Your task to perform on an android device: Open Google Chrome and click the shortcut for Amazon.com Image 0: 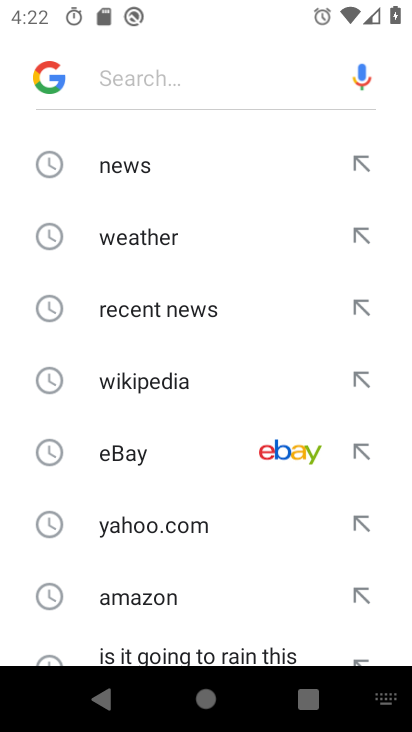
Step 0: press home button
Your task to perform on an android device: Open Google Chrome and click the shortcut for Amazon.com Image 1: 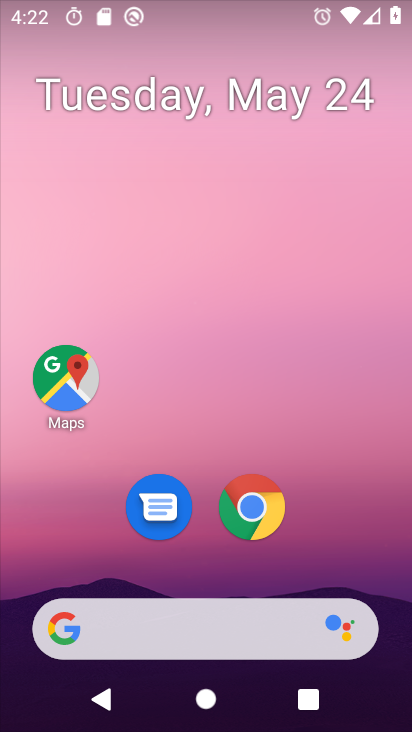
Step 1: click (251, 506)
Your task to perform on an android device: Open Google Chrome and click the shortcut for Amazon.com Image 2: 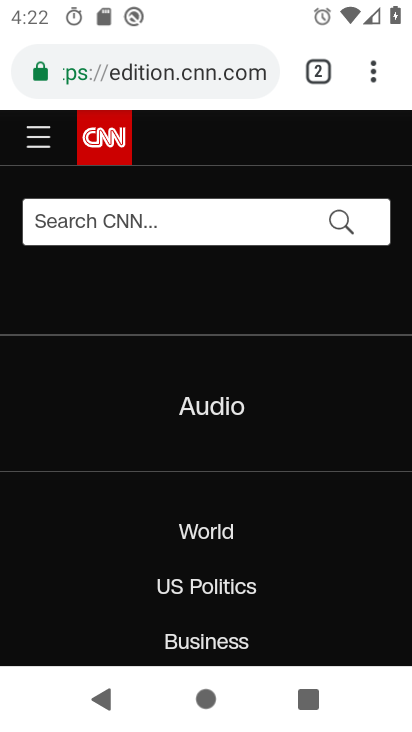
Step 2: click (378, 74)
Your task to perform on an android device: Open Google Chrome and click the shortcut for Amazon.com Image 3: 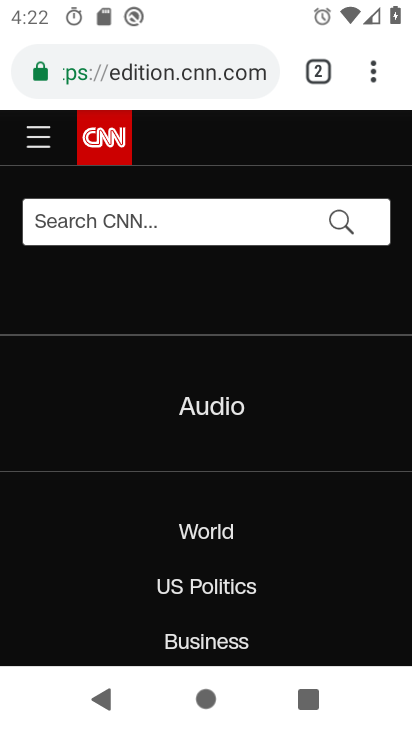
Step 3: click (368, 81)
Your task to perform on an android device: Open Google Chrome and click the shortcut for Amazon.com Image 4: 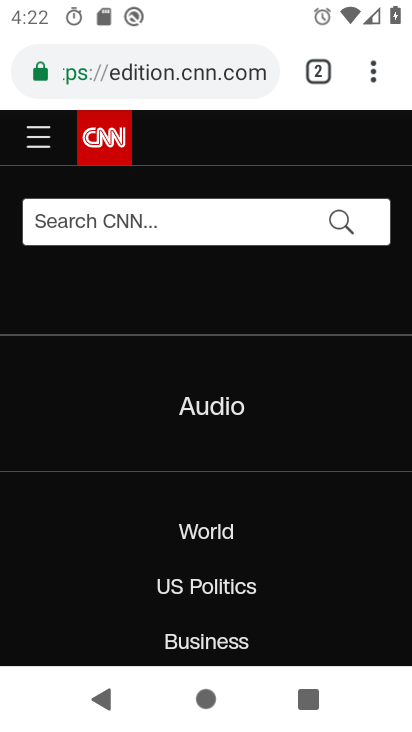
Step 4: click (364, 87)
Your task to perform on an android device: Open Google Chrome and click the shortcut for Amazon.com Image 5: 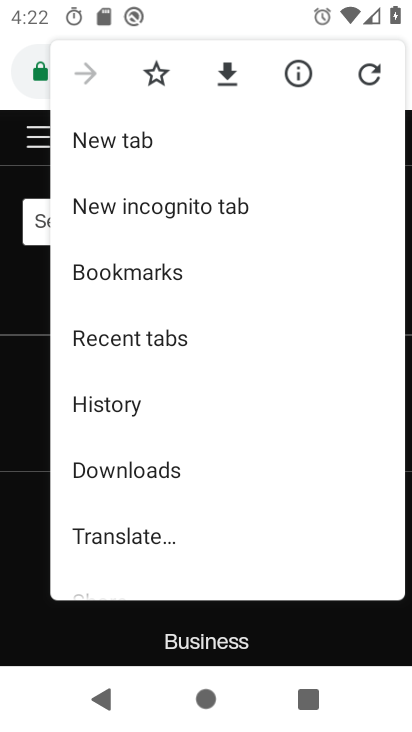
Step 5: click (313, 142)
Your task to perform on an android device: Open Google Chrome and click the shortcut for Amazon.com Image 6: 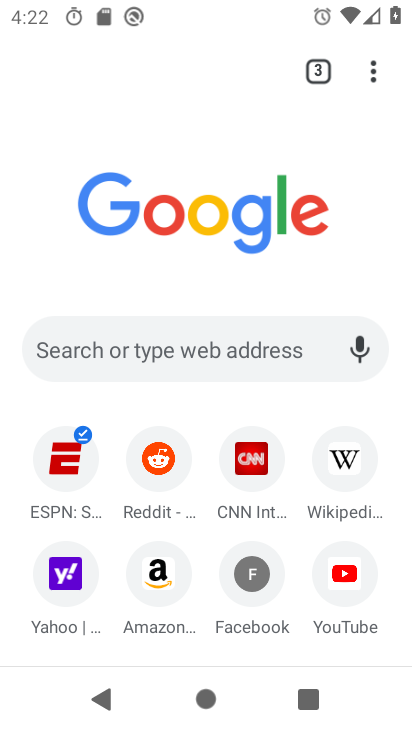
Step 6: click (173, 580)
Your task to perform on an android device: Open Google Chrome and click the shortcut for Amazon.com Image 7: 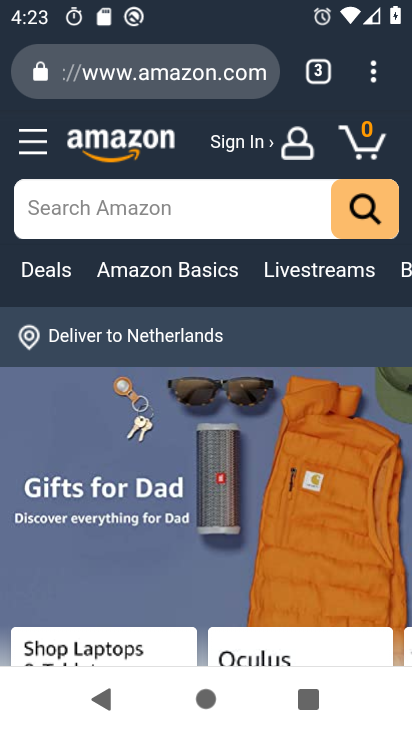
Step 7: task complete